Your task to perform on an android device: Do I have any events today? Image 0: 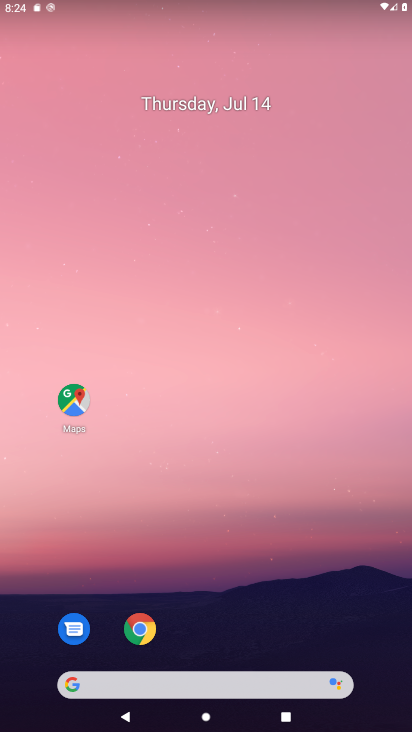
Step 0: drag from (263, 662) to (35, 0)
Your task to perform on an android device: Do I have any events today? Image 1: 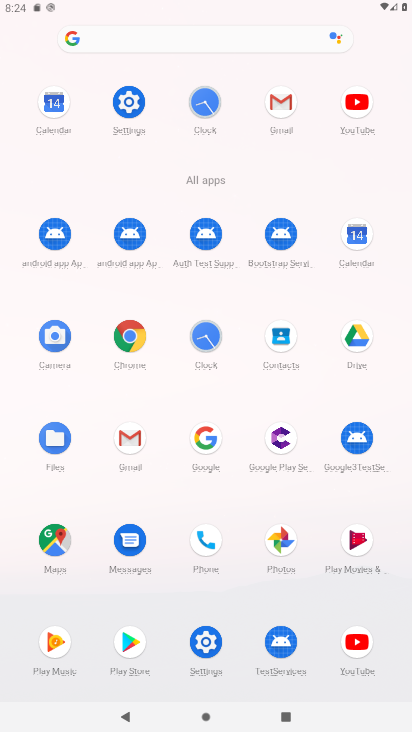
Step 1: click (354, 230)
Your task to perform on an android device: Do I have any events today? Image 2: 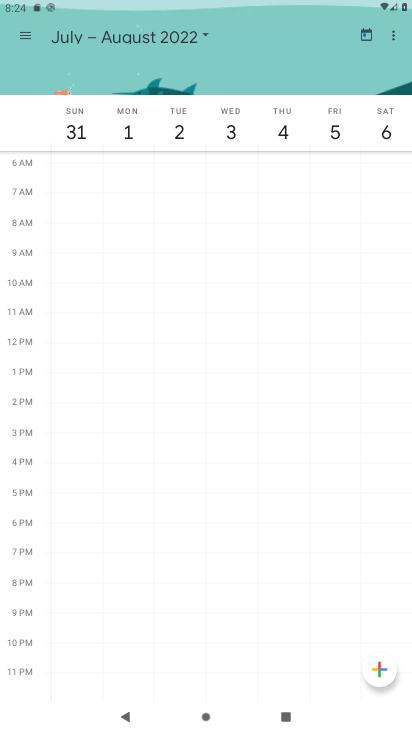
Step 2: click (71, 36)
Your task to perform on an android device: Do I have any events today? Image 3: 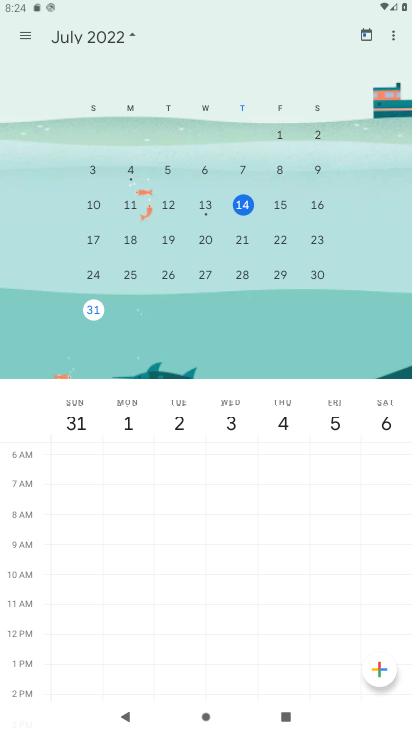
Step 3: click (114, 210)
Your task to perform on an android device: Do I have any events today? Image 4: 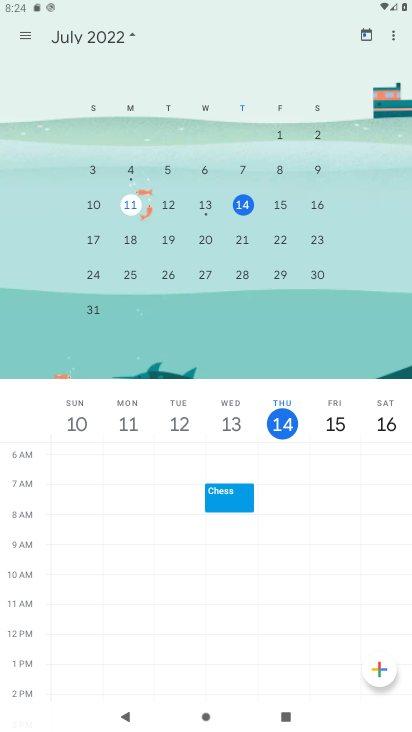
Step 4: click (242, 199)
Your task to perform on an android device: Do I have any events today? Image 5: 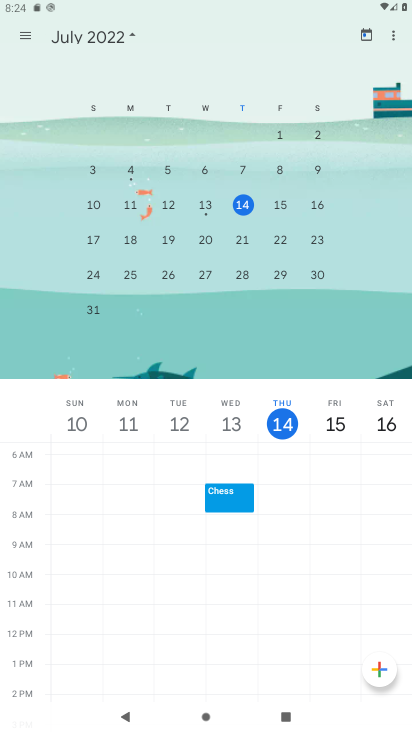
Step 5: click (16, 29)
Your task to perform on an android device: Do I have any events today? Image 6: 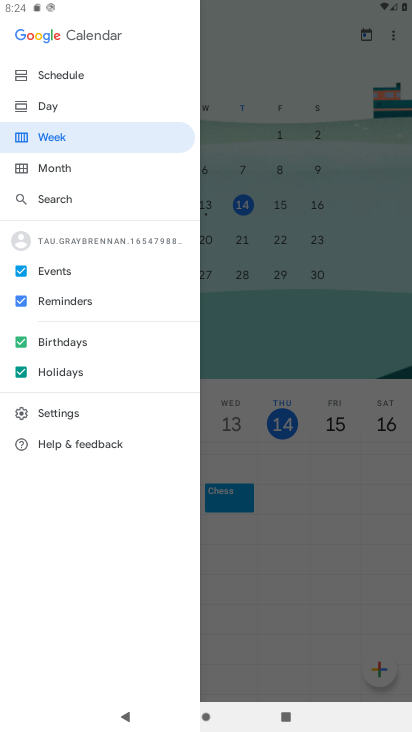
Step 6: click (62, 308)
Your task to perform on an android device: Do I have any events today? Image 7: 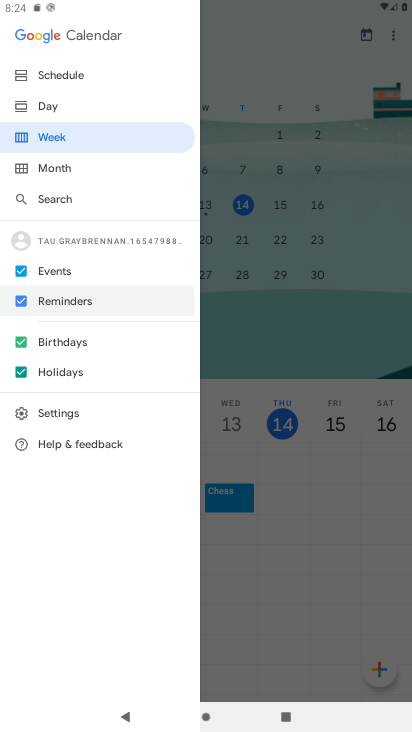
Step 7: click (60, 349)
Your task to perform on an android device: Do I have any events today? Image 8: 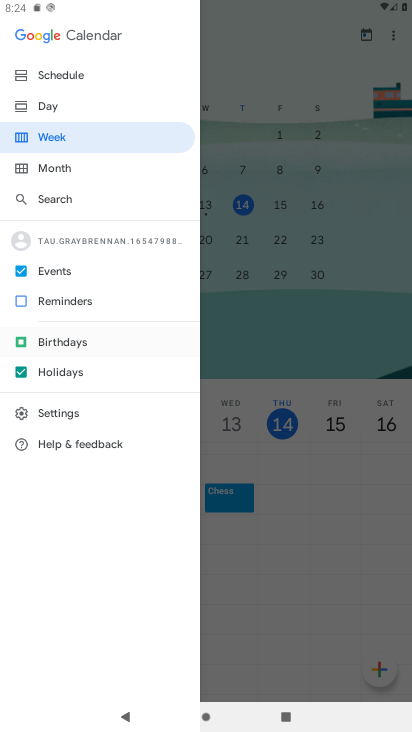
Step 8: click (67, 368)
Your task to perform on an android device: Do I have any events today? Image 9: 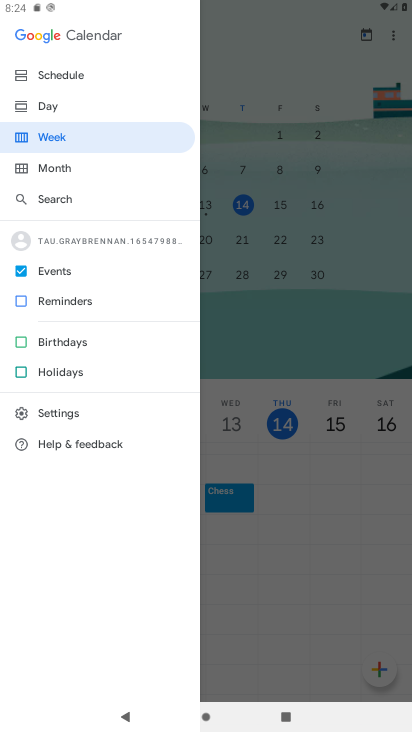
Step 9: click (44, 100)
Your task to perform on an android device: Do I have any events today? Image 10: 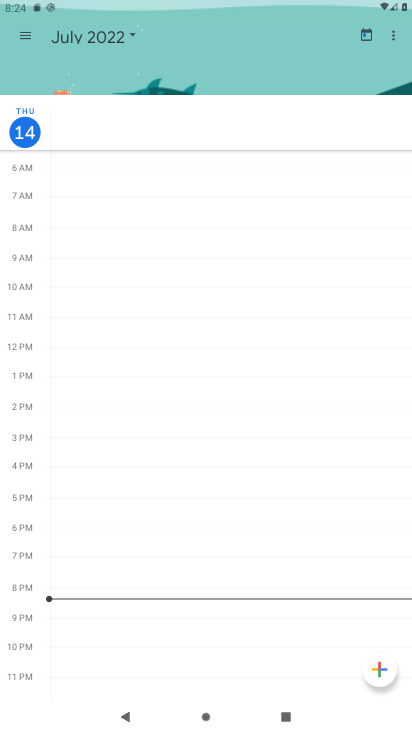
Step 10: task complete